Your task to perform on an android device: Set the phone to "Do not disturb". Image 0: 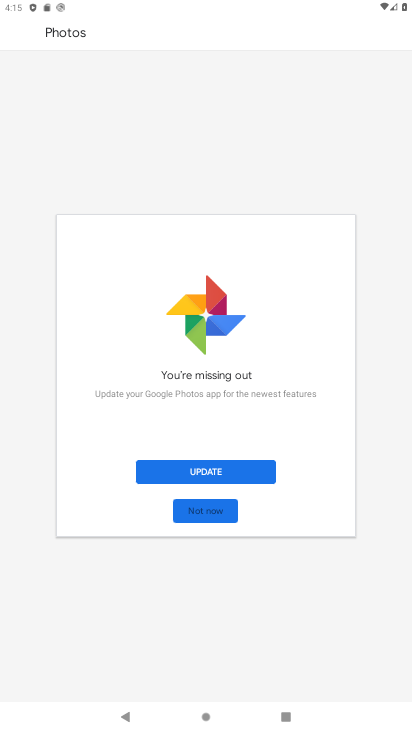
Step 0: press home button
Your task to perform on an android device: Set the phone to "Do not disturb". Image 1: 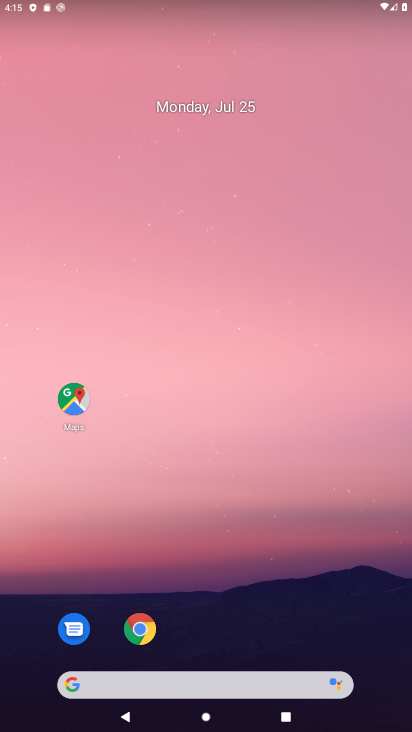
Step 1: drag from (244, 691) to (275, 14)
Your task to perform on an android device: Set the phone to "Do not disturb". Image 2: 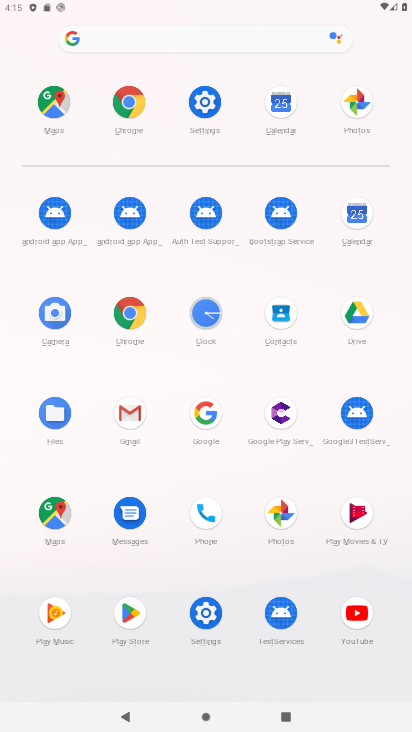
Step 2: click (209, 104)
Your task to perform on an android device: Set the phone to "Do not disturb". Image 3: 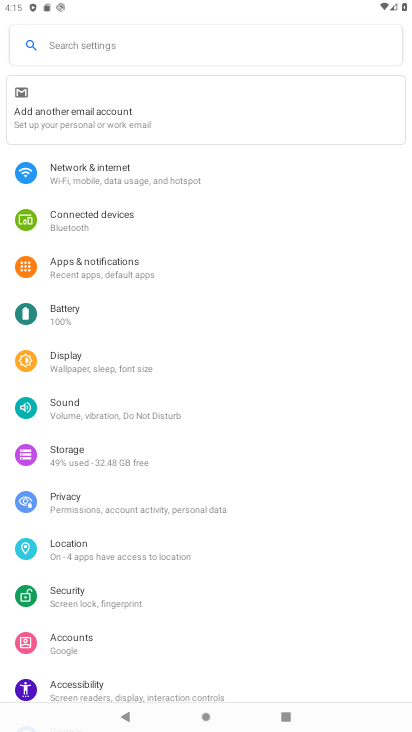
Step 3: click (132, 408)
Your task to perform on an android device: Set the phone to "Do not disturb". Image 4: 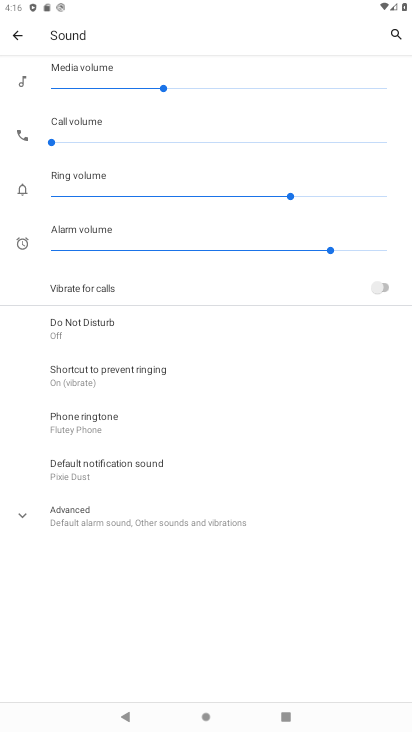
Step 4: click (108, 323)
Your task to perform on an android device: Set the phone to "Do not disturb". Image 5: 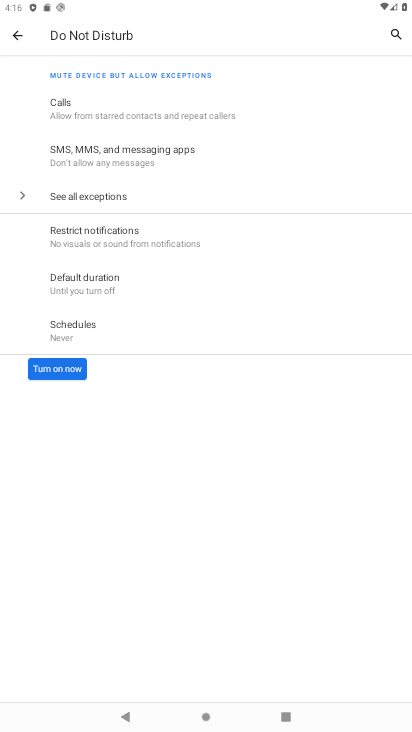
Step 5: click (65, 360)
Your task to perform on an android device: Set the phone to "Do not disturb". Image 6: 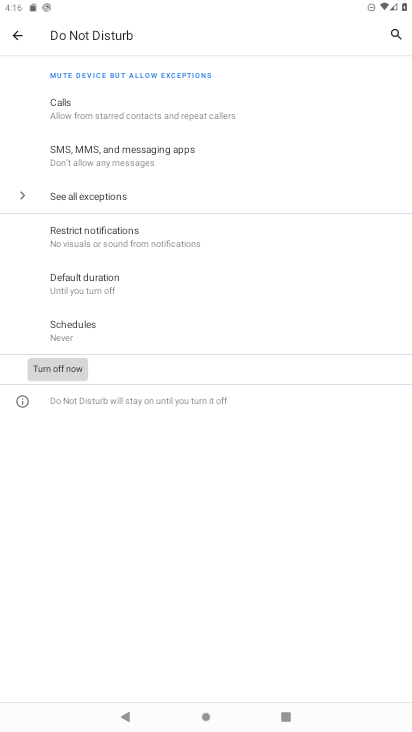
Step 6: task complete